Your task to perform on an android device: stop showing notifications on the lock screen Image 0: 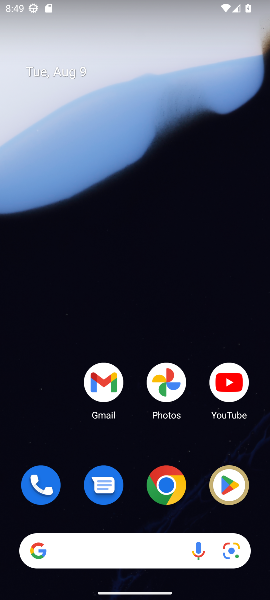
Step 0: drag from (157, 454) to (39, 68)
Your task to perform on an android device: stop showing notifications on the lock screen Image 1: 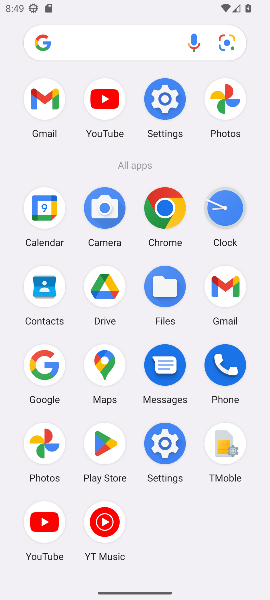
Step 1: click (164, 446)
Your task to perform on an android device: stop showing notifications on the lock screen Image 2: 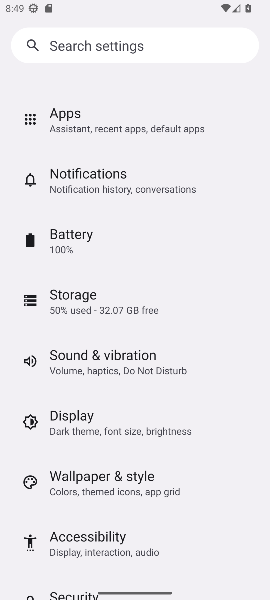
Step 2: click (76, 189)
Your task to perform on an android device: stop showing notifications on the lock screen Image 3: 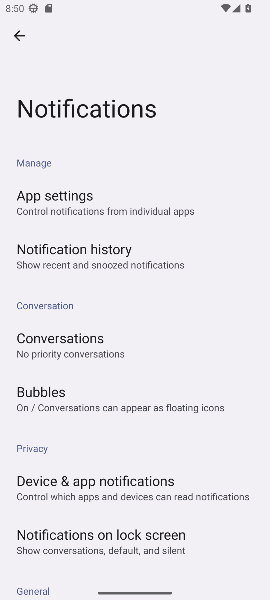
Step 3: click (88, 548)
Your task to perform on an android device: stop showing notifications on the lock screen Image 4: 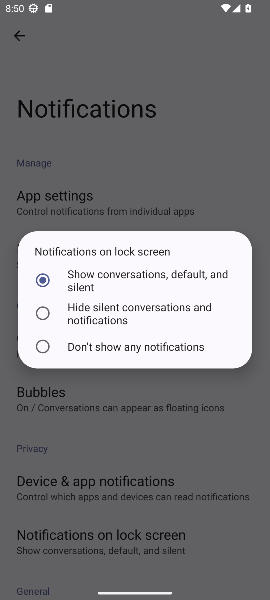
Step 4: click (74, 344)
Your task to perform on an android device: stop showing notifications on the lock screen Image 5: 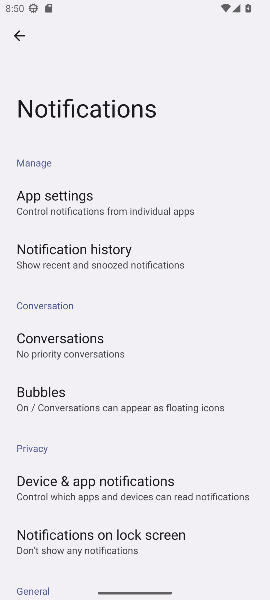
Step 5: task complete